Your task to perform on an android device: refresh tabs in the chrome app Image 0: 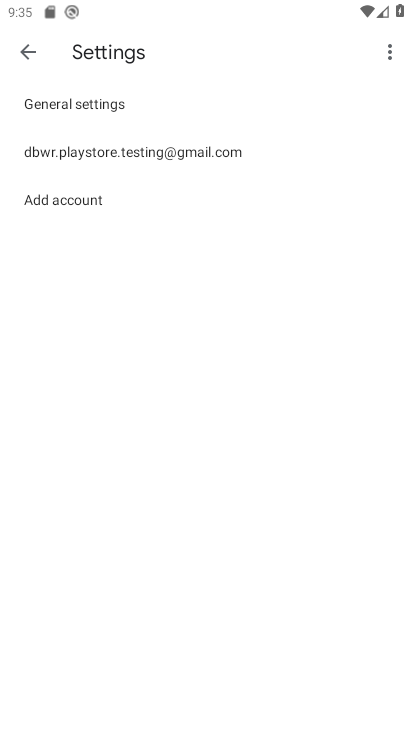
Step 0: press home button
Your task to perform on an android device: refresh tabs in the chrome app Image 1: 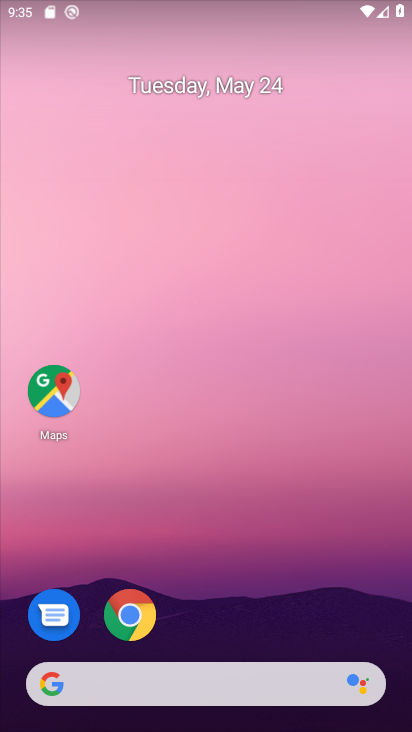
Step 1: drag from (366, 626) to (355, 235)
Your task to perform on an android device: refresh tabs in the chrome app Image 2: 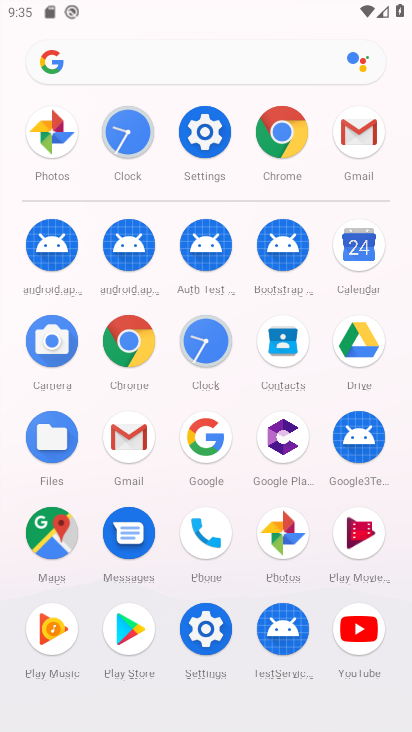
Step 2: click (134, 346)
Your task to perform on an android device: refresh tabs in the chrome app Image 3: 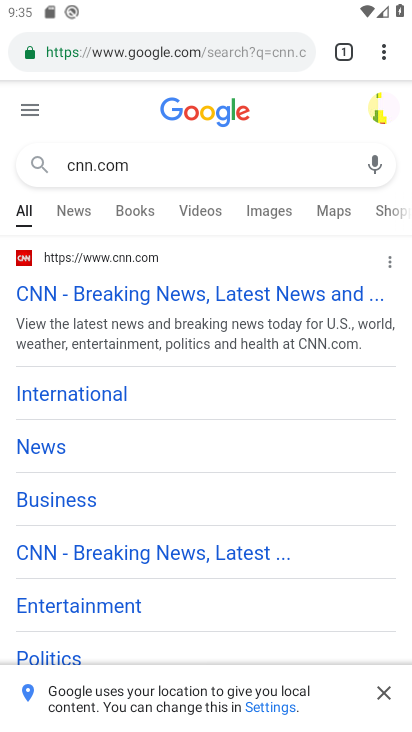
Step 3: click (384, 57)
Your task to perform on an android device: refresh tabs in the chrome app Image 4: 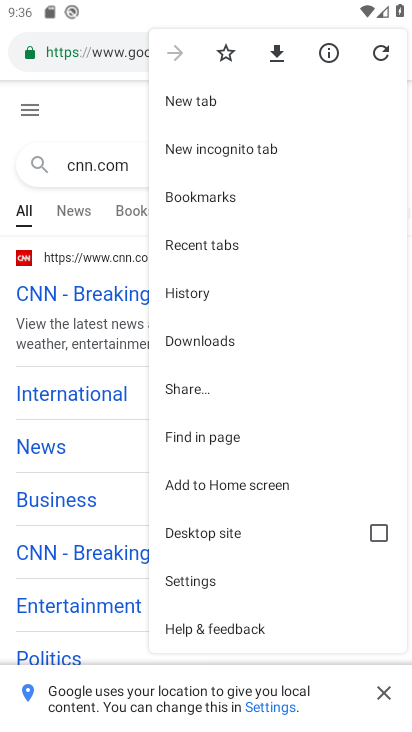
Step 4: click (382, 53)
Your task to perform on an android device: refresh tabs in the chrome app Image 5: 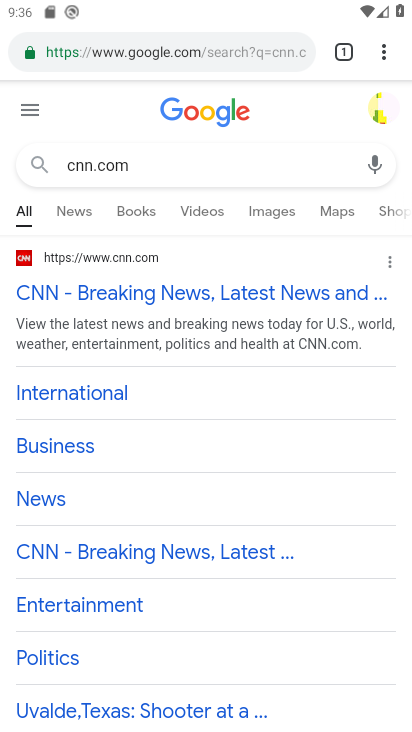
Step 5: task complete